Your task to perform on an android device: manage bookmarks in the chrome app Image 0: 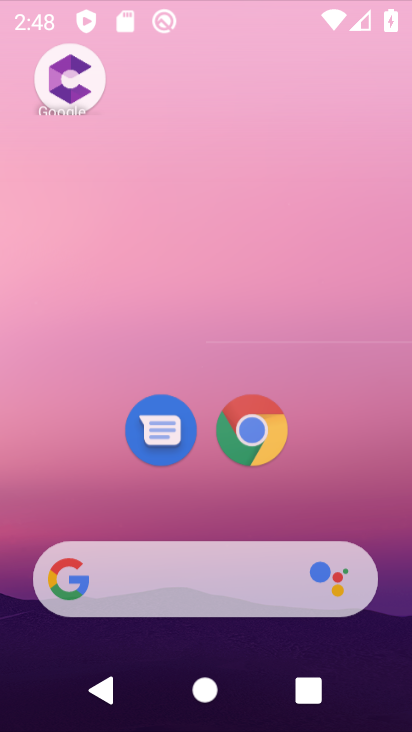
Step 0: drag from (138, 87) to (152, 34)
Your task to perform on an android device: manage bookmarks in the chrome app Image 1: 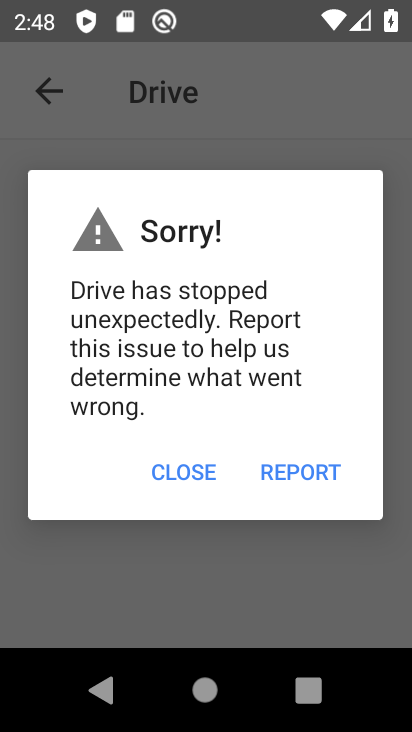
Step 1: click (207, 472)
Your task to perform on an android device: manage bookmarks in the chrome app Image 2: 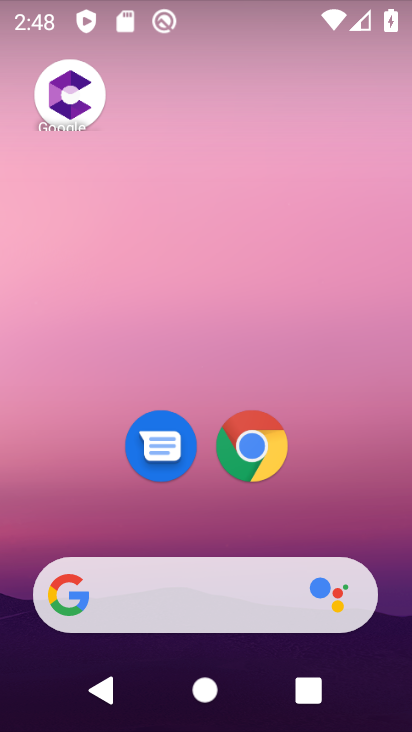
Step 2: click (150, 68)
Your task to perform on an android device: manage bookmarks in the chrome app Image 3: 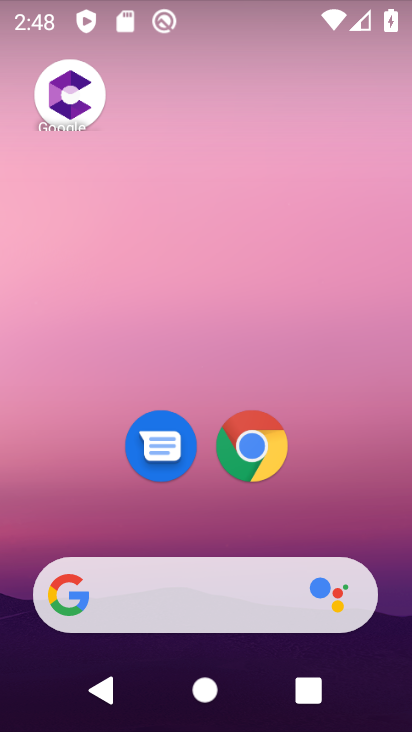
Step 3: drag from (223, 303) to (170, 21)
Your task to perform on an android device: manage bookmarks in the chrome app Image 4: 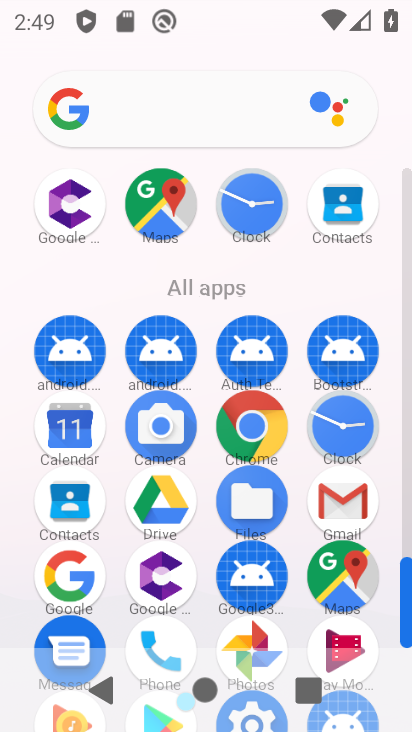
Step 4: click (243, 421)
Your task to perform on an android device: manage bookmarks in the chrome app Image 5: 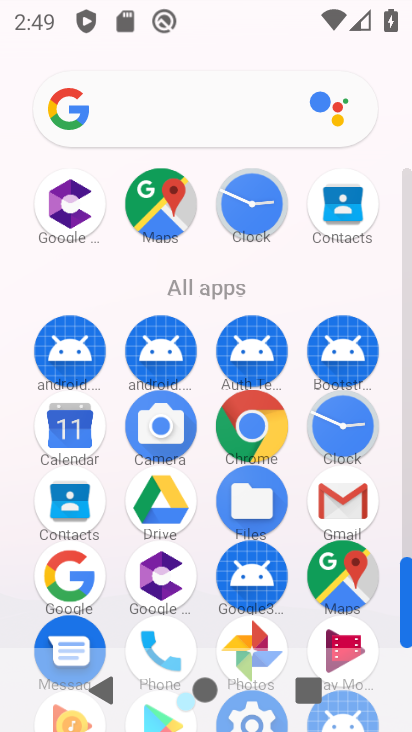
Step 5: click (247, 421)
Your task to perform on an android device: manage bookmarks in the chrome app Image 6: 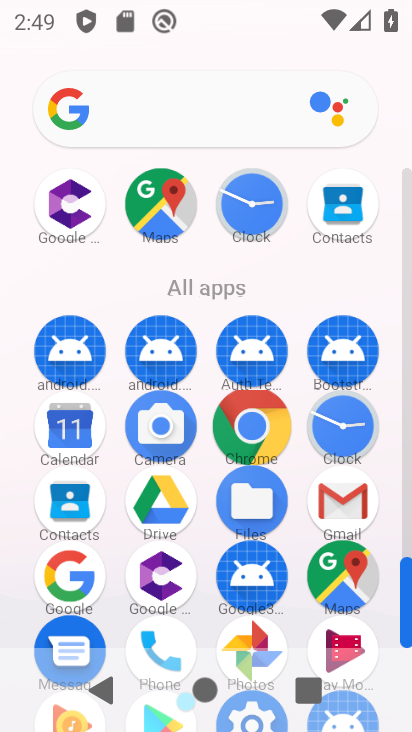
Step 6: click (252, 427)
Your task to perform on an android device: manage bookmarks in the chrome app Image 7: 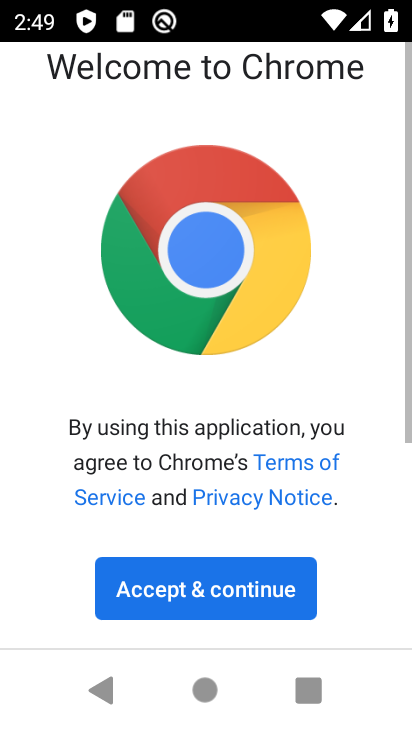
Step 7: click (225, 580)
Your task to perform on an android device: manage bookmarks in the chrome app Image 8: 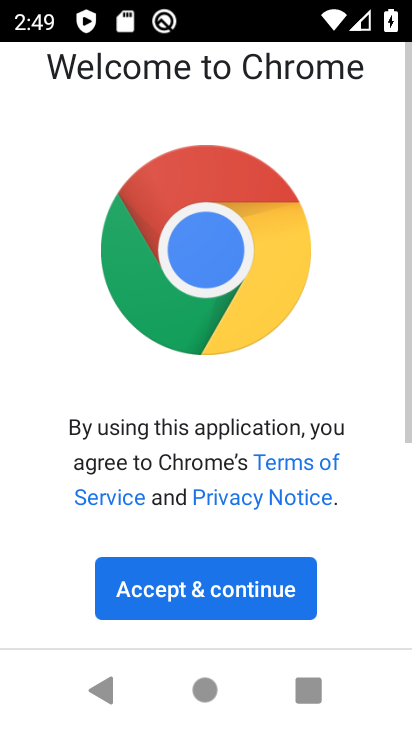
Step 8: click (225, 578)
Your task to perform on an android device: manage bookmarks in the chrome app Image 9: 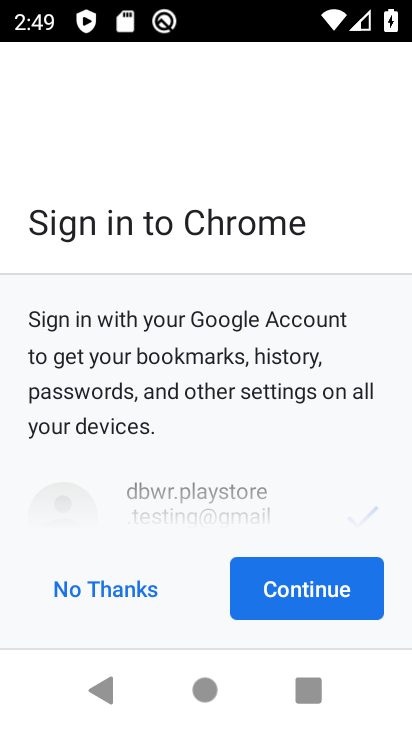
Step 9: click (307, 586)
Your task to perform on an android device: manage bookmarks in the chrome app Image 10: 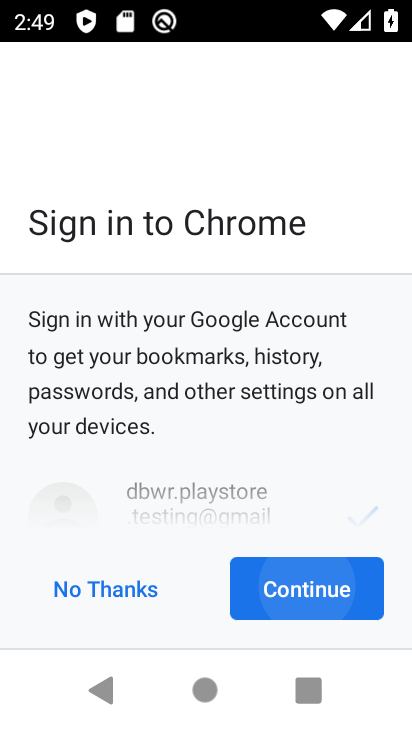
Step 10: click (307, 586)
Your task to perform on an android device: manage bookmarks in the chrome app Image 11: 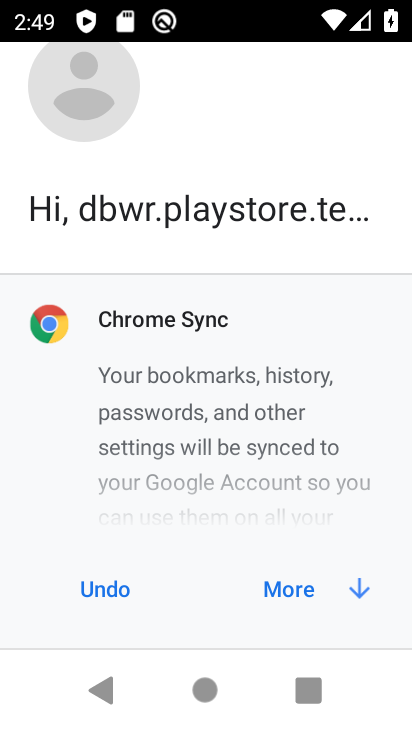
Step 11: click (307, 585)
Your task to perform on an android device: manage bookmarks in the chrome app Image 12: 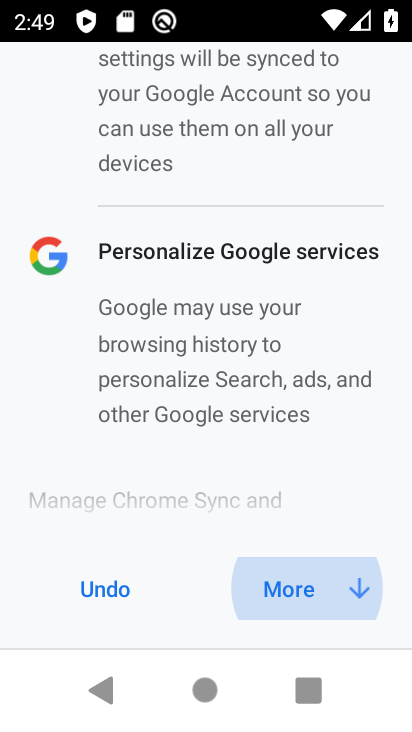
Step 12: click (307, 585)
Your task to perform on an android device: manage bookmarks in the chrome app Image 13: 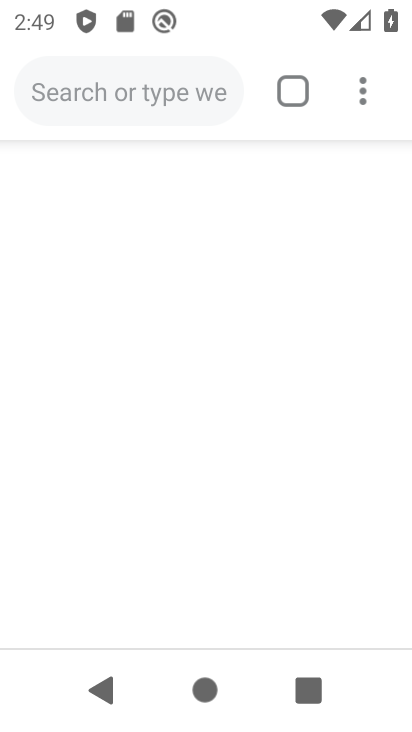
Step 13: click (307, 585)
Your task to perform on an android device: manage bookmarks in the chrome app Image 14: 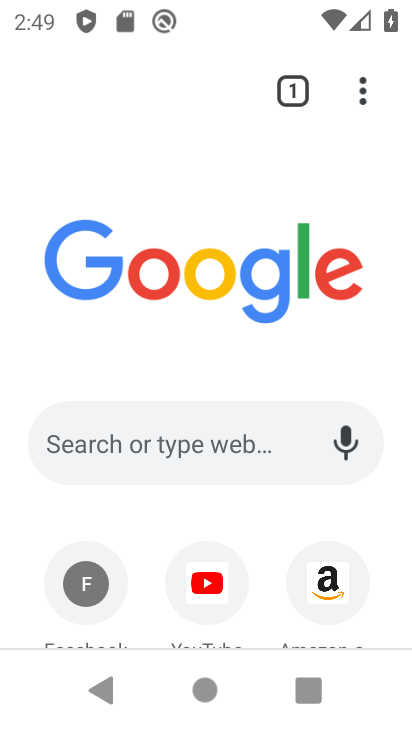
Step 14: drag from (265, 540) to (200, 131)
Your task to perform on an android device: manage bookmarks in the chrome app Image 15: 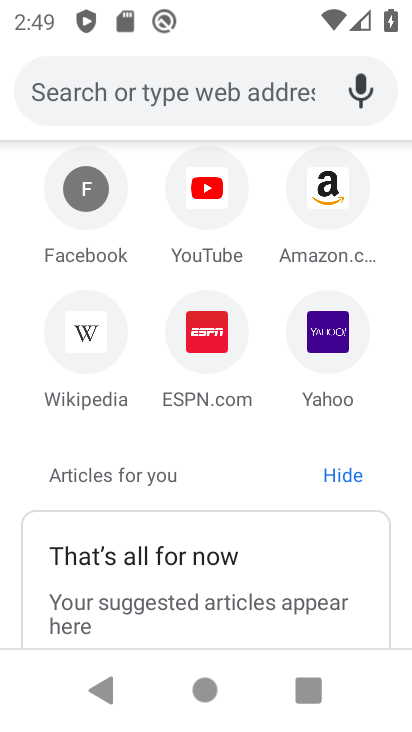
Step 15: drag from (258, 444) to (200, 67)
Your task to perform on an android device: manage bookmarks in the chrome app Image 16: 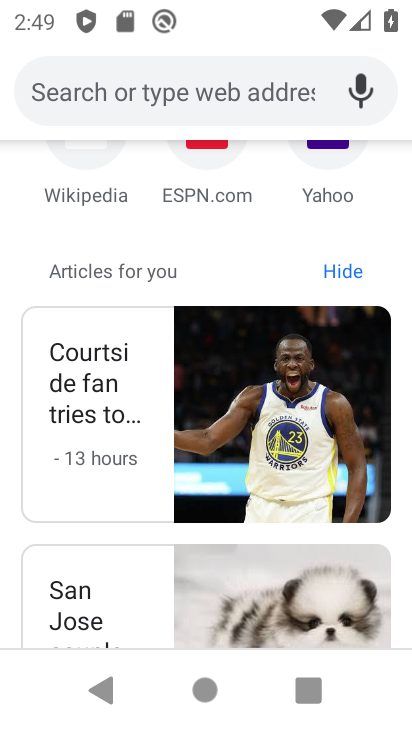
Step 16: drag from (219, 448) to (190, 150)
Your task to perform on an android device: manage bookmarks in the chrome app Image 17: 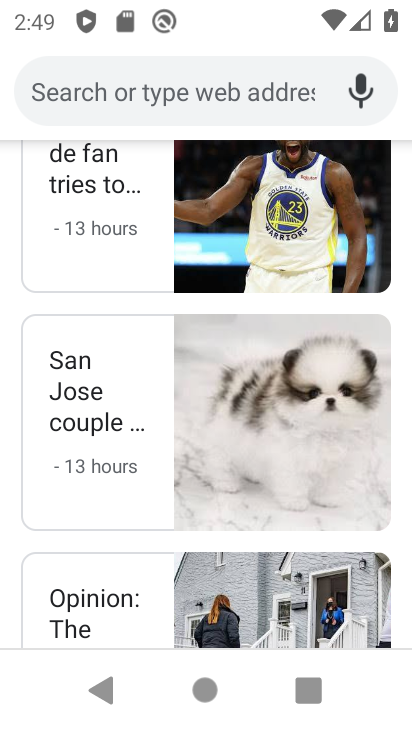
Step 17: drag from (267, 442) to (297, 521)
Your task to perform on an android device: manage bookmarks in the chrome app Image 18: 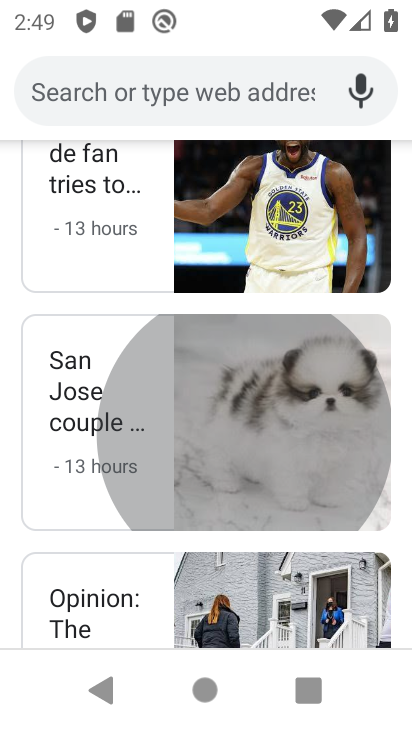
Step 18: click (291, 613)
Your task to perform on an android device: manage bookmarks in the chrome app Image 19: 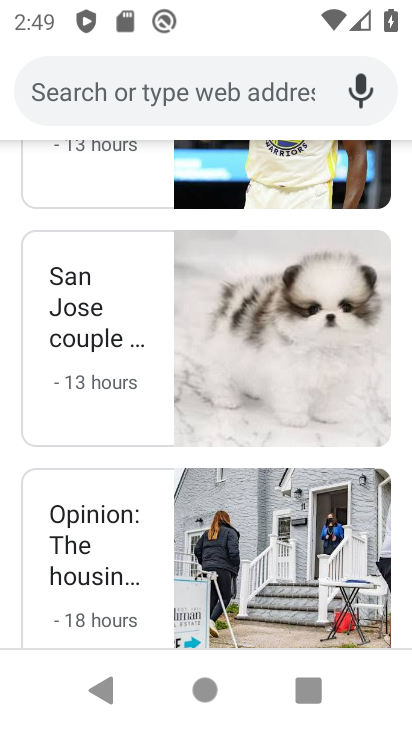
Step 19: drag from (322, 498) to (371, 594)
Your task to perform on an android device: manage bookmarks in the chrome app Image 20: 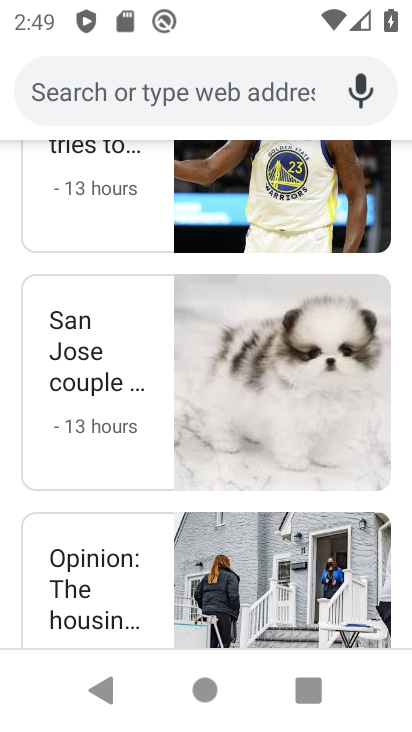
Step 20: drag from (275, 312) to (358, 516)
Your task to perform on an android device: manage bookmarks in the chrome app Image 21: 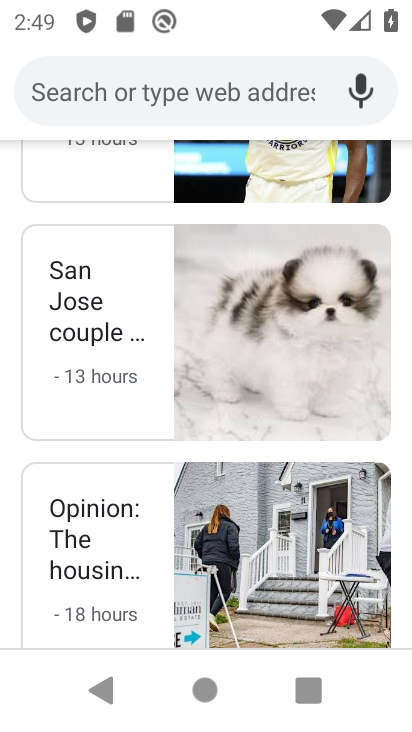
Step 21: drag from (282, 310) to (308, 562)
Your task to perform on an android device: manage bookmarks in the chrome app Image 22: 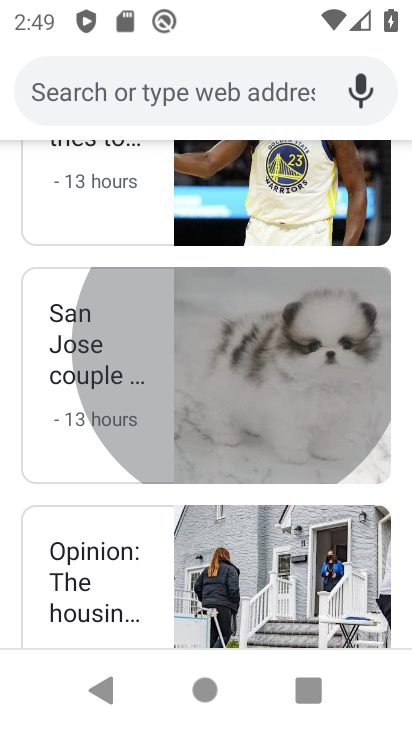
Step 22: drag from (287, 553) to (299, 588)
Your task to perform on an android device: manage bookmarks in the chrome app Image 23: 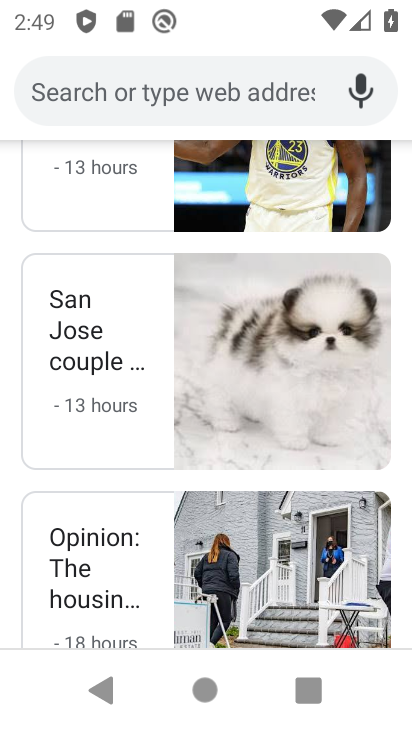
Step 23: drag from (253, 440) to (272, 515)
Your task to perform on an android device: manage bookmarks in the chrome app Image 24: 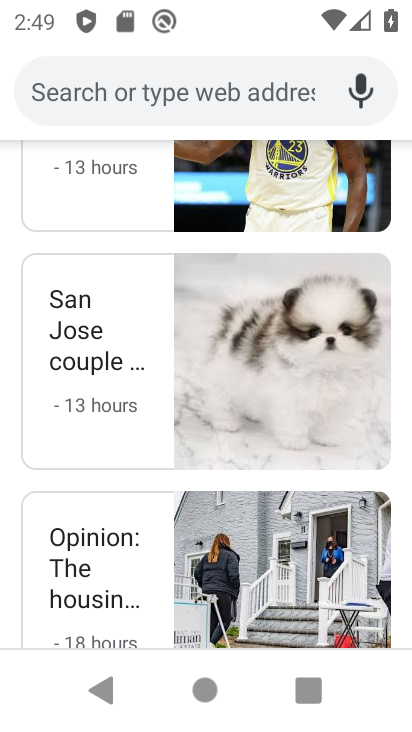
Step 24: drag from (234, 321) to (286, 436)
Your task to perform on an android device: manage bookmarks in the chrome app Image 25: 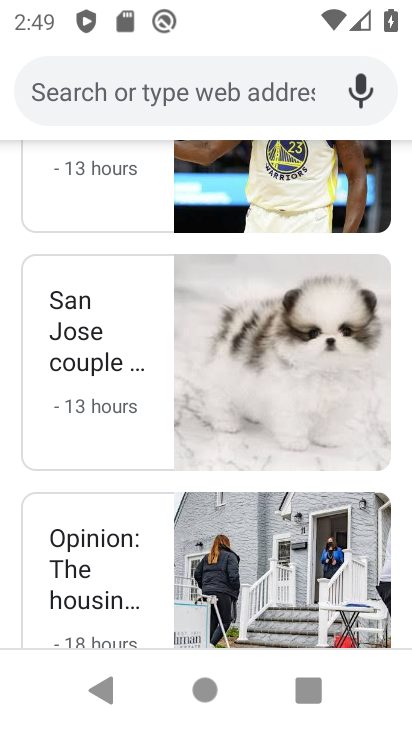
Step 25: click (298, 306)
Your task to perform on an android device: manage bookmarks in the chrome app Image 26: 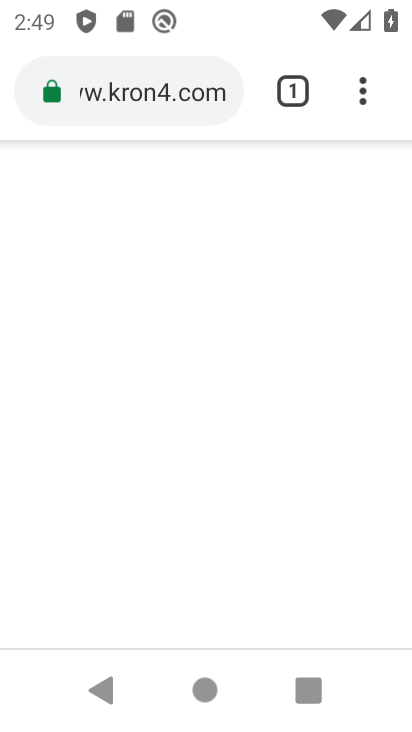
Step 26: press back button
Your task to perform on an android device: manage bookmarks in the chrome app Image 27: 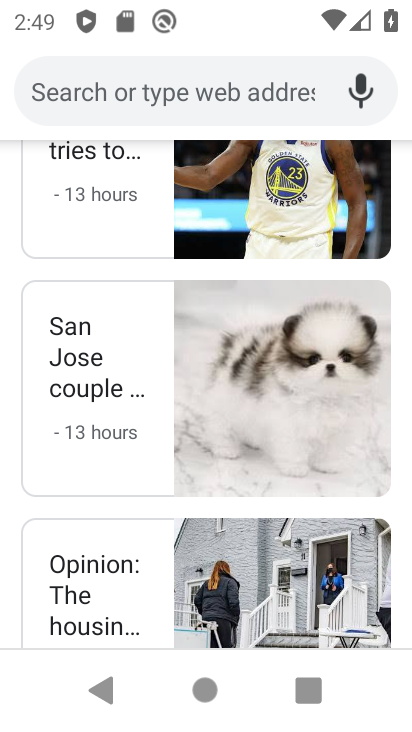
Step 27: drag from (277, 223) to (306, 437)
Your task to perform on an android device: manage bookmarks in the chrome app Image 28: 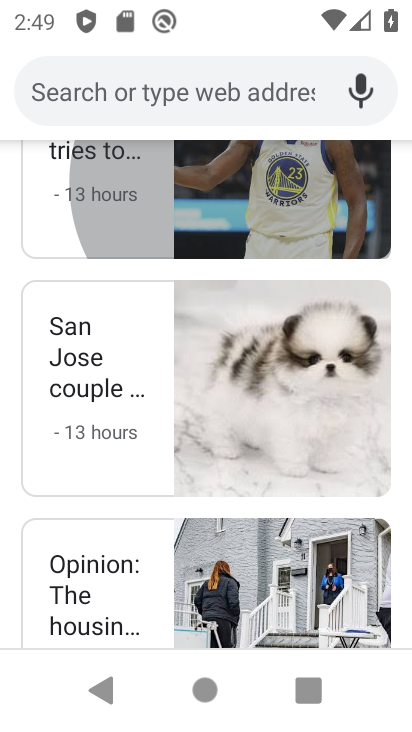
Step 28: drag from (246, 318) to (177, 477)
Your task to perform on an android device: manage bookmarks in the chrome app Image 29: 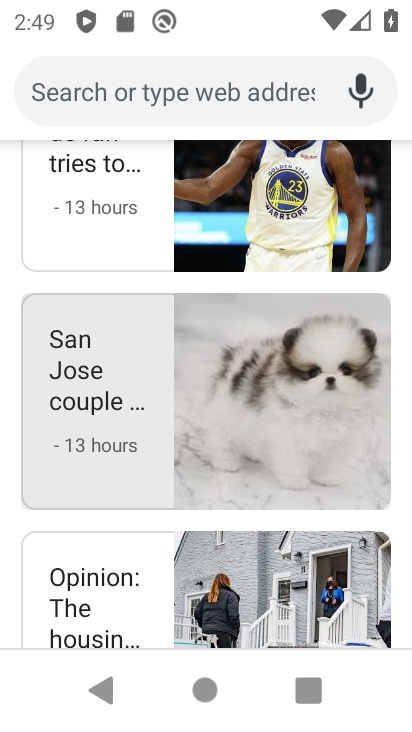
Step 29: click (154, 451)
Your task to perform on an android device: manage bookmarks in the chrome app Image 30: 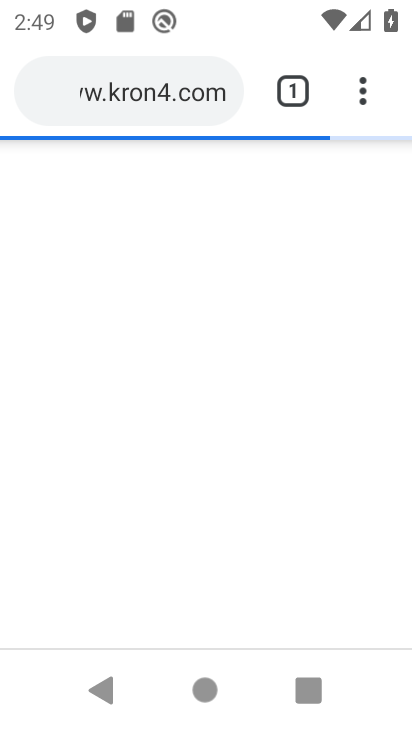
Step 30: click (294, 434)
Your task to perform on an android device: manage bookmarks in the chrome app Image 31: 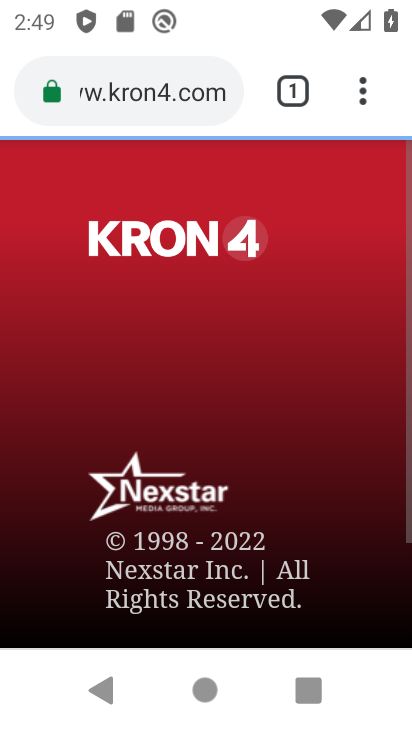
Step 31: drag from (239, 289) to (260, 444)
Your task to perform on an android device: manage bookmarks in the chrome app Image 32: 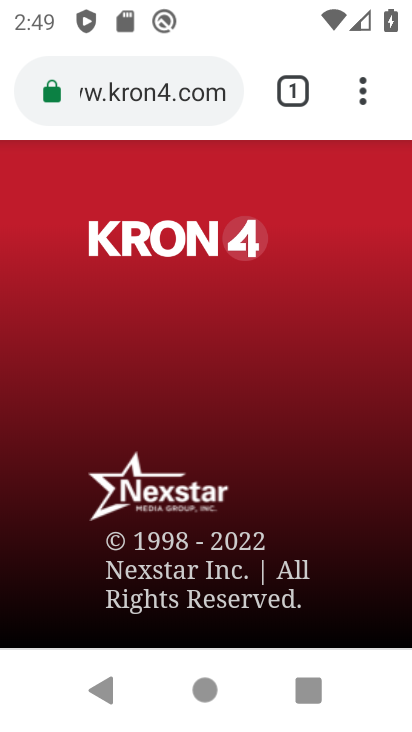
Step 32: drag from (366, 84) to (102, 360)
Your task to perform on an android device: manage bookmarks in the chrome app Image 33: 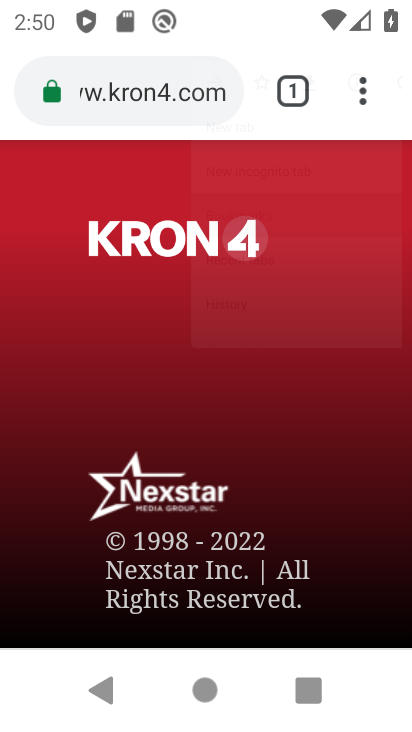
Step 33: click (105, 358)
Your task to perform on an android device: manage bookmarks in the chrome app Image 34: 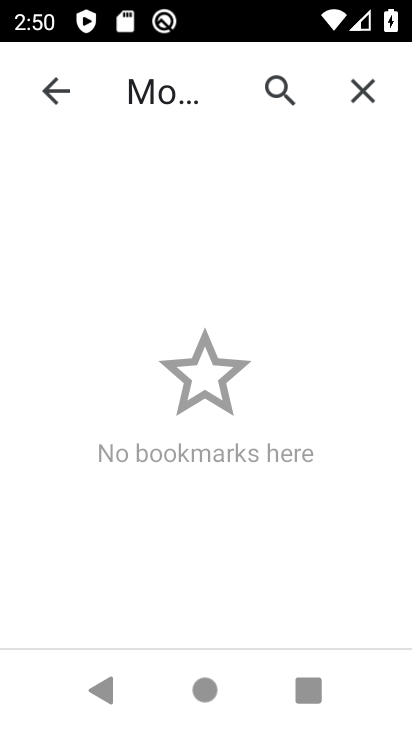
Step 34: task complete